Your task to perform on an android device: Show me recent news Image 0: 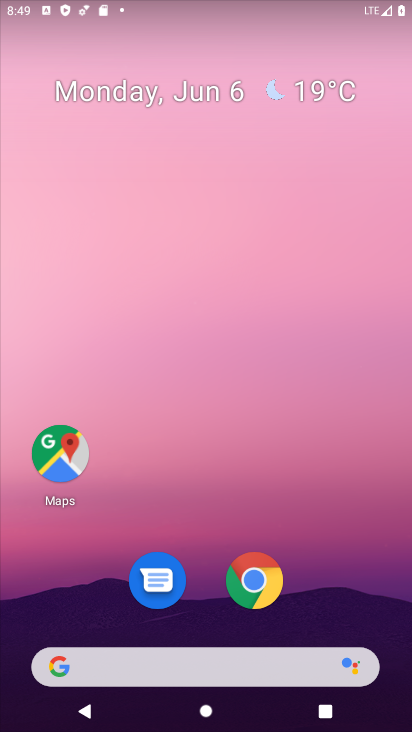
Step 0: drag from (323, 117) to (376, 5)
Your task to perform on an android device: Show me recent news Image 1: 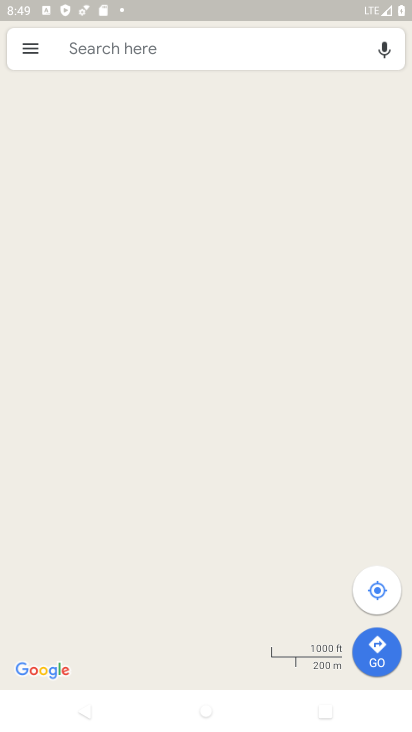
Step 1: press home button
Your task to perform on an android device: Show me recent news Image 2: 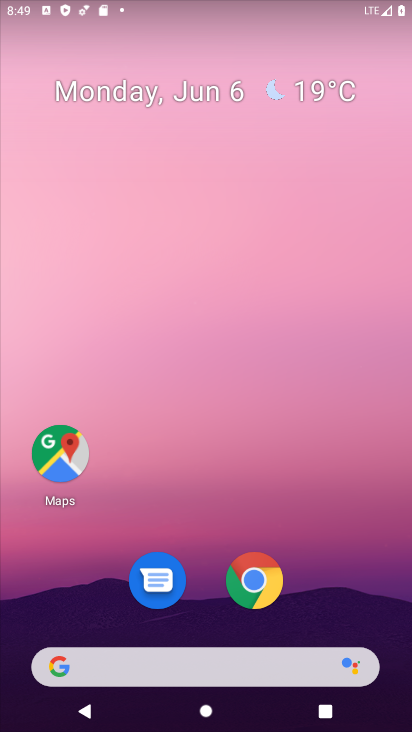
Step 2: drag from (329, 606) to (326, 100)
Your task to perform on an android device: Show me recent news Image 3: 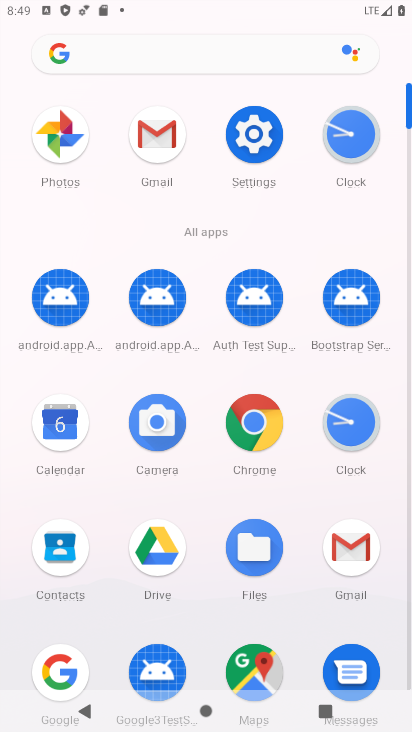
Step 3: click (253, 424)
Your task to perform on an android device: Show me recent news Image 4: 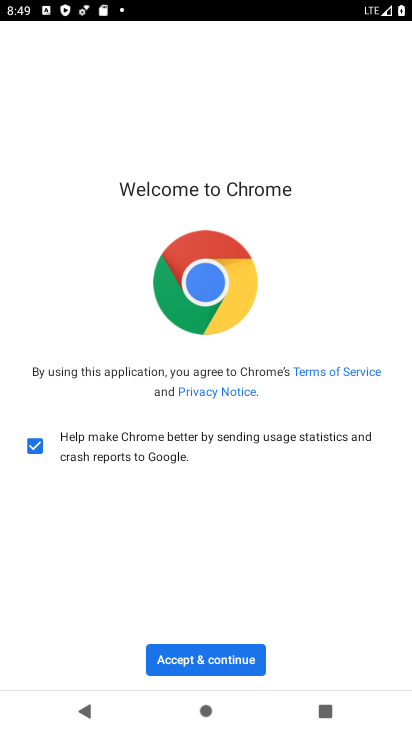
Step 4: click (184, 674)
Your task to perform on an android device: Show me recent news Image 5: 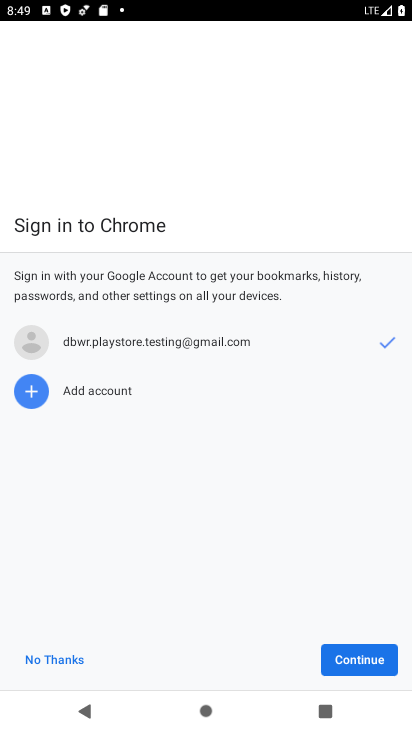
Step 5: click (41, 655)
Your task to perform on an android device: Show me recent news Image 6: 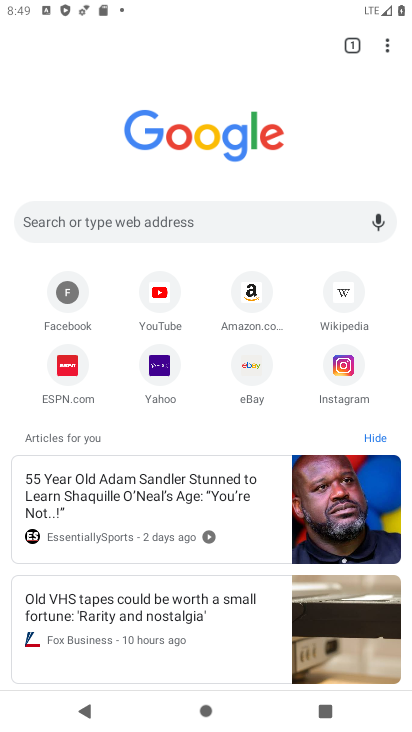
Step 6: task complete